Your task to perform on an android device: Open notification settings Image 0: 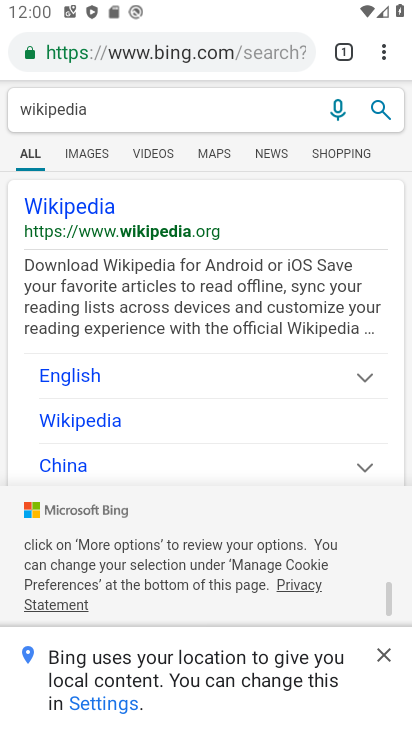
Step 0: press home button
Your task to perform on an android device: Open notification settings Image 1: 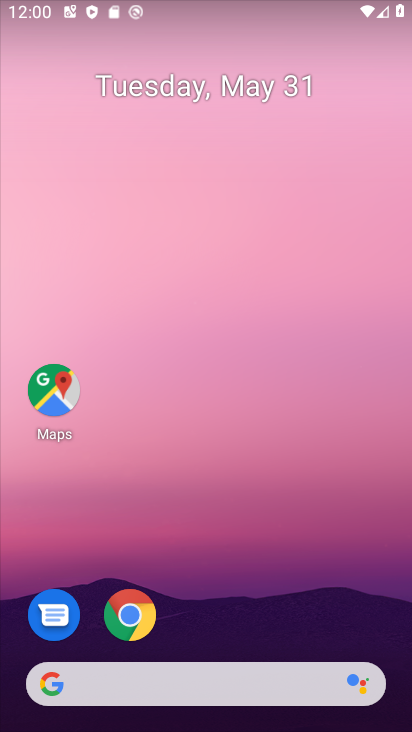
Step 1: drag from (353, 603) to (375, 228)
Your task to perform on an android device: Open notification settings Image 2: 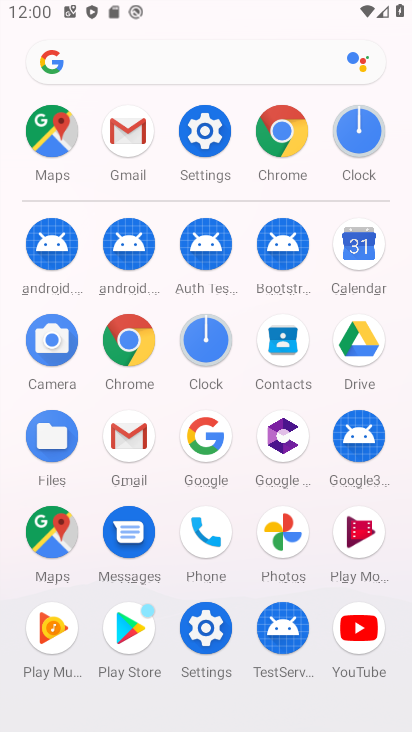
Step 2: click (207, 651)
Your task to perform on an android device: Open notification settings Image 3: 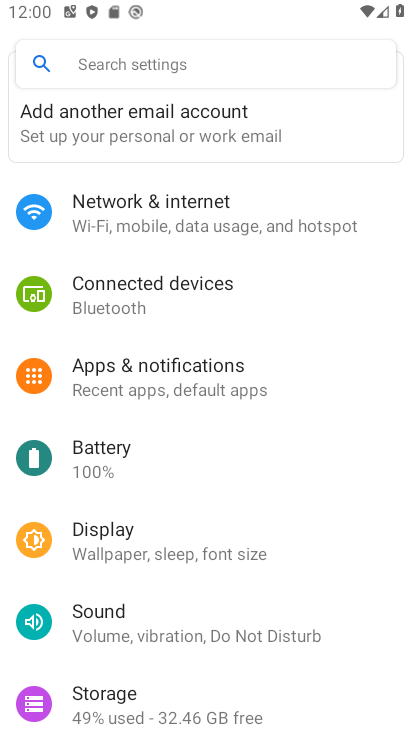
Step 3: drag from (359, 529) to (366, 442)
Your task to perform on an android device: Open notification settings Image 4: 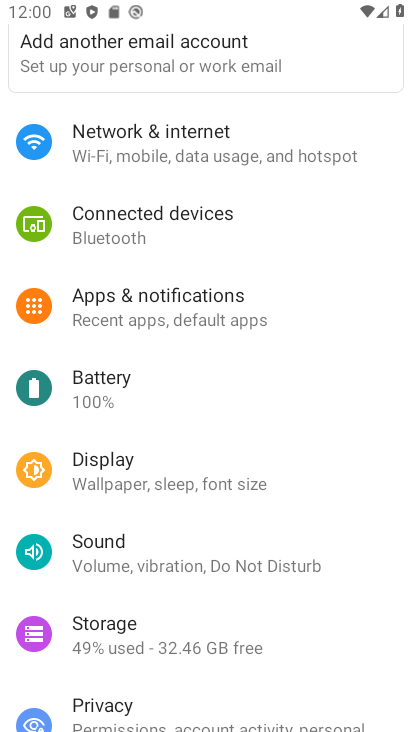
Step 4: drag from (368, 589) to (368, 502)
Your task to perform on an android device: Open notification settings Image 5: 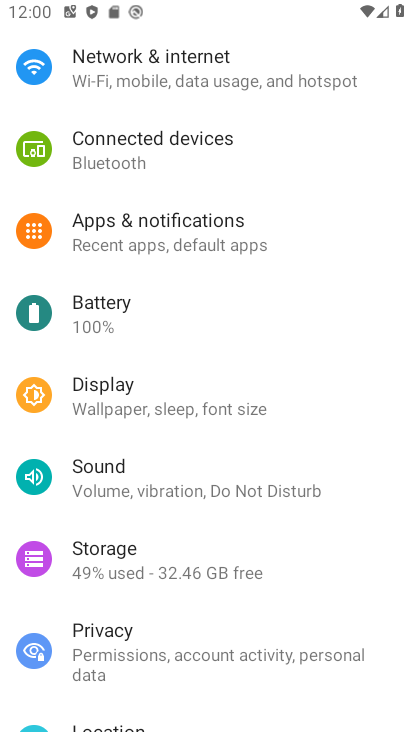
Step 5: drag from (339, 278) to (352, 463)
Your task to perform on an android device: Open notification settings Image 6: 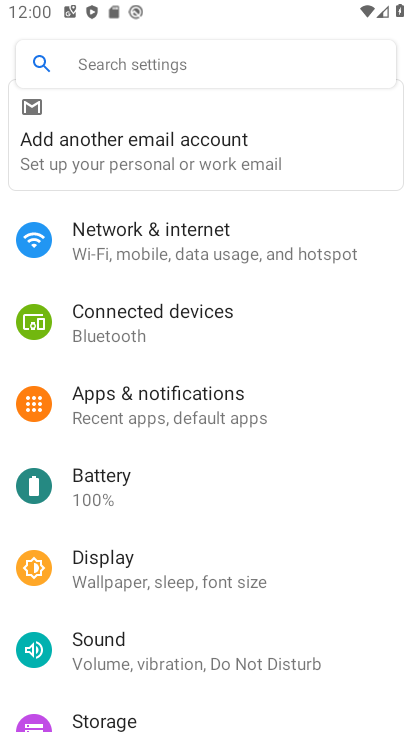
Step 6: click (256, 424)
Your task to perform on an android device: Open notification settings Image 7: 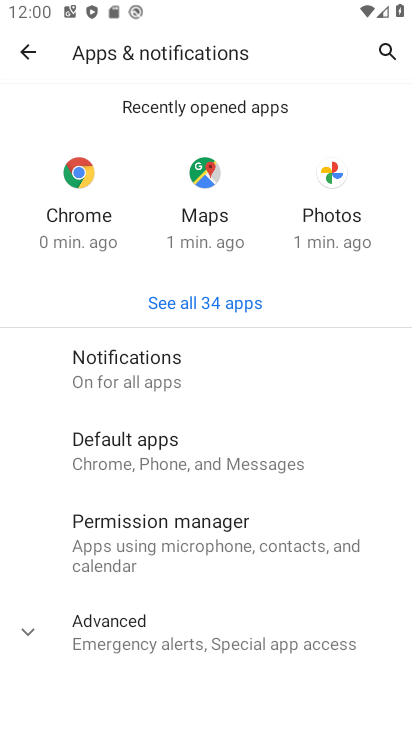
Step 7: click (237, 393)
Your task to perform on an android device: Open notification settings Image 8: 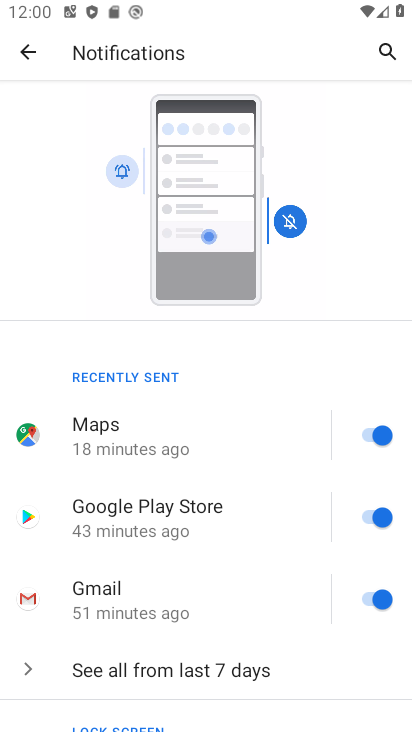
Step 8: task complete